Your task to perform on an android device: Go to CNN.com Image 0: 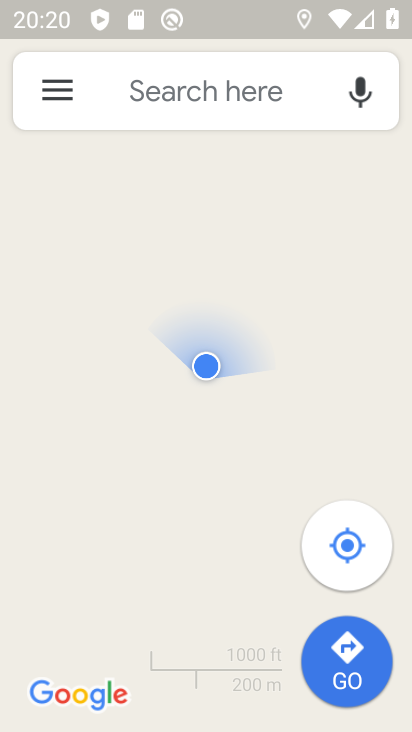
Step 0: press home button
Your task to perform on an android device: Go to CNN.com Image 1: 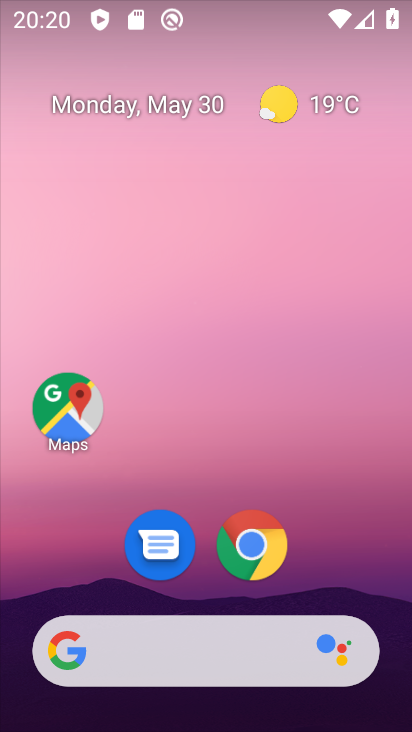
Step 1: drag from (344, 566) to (304, 298)
Your task to perform on an android device: Go to CNN.com Image 2: 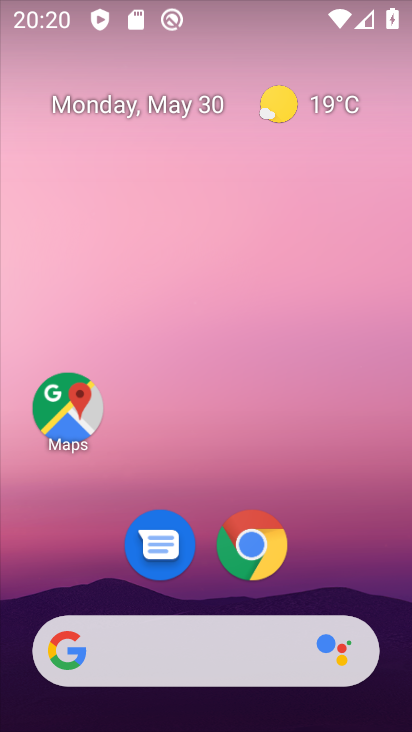
Step 2: click (252, 555)
Your task to perform on an android device: Go to CNN.com Image 3: 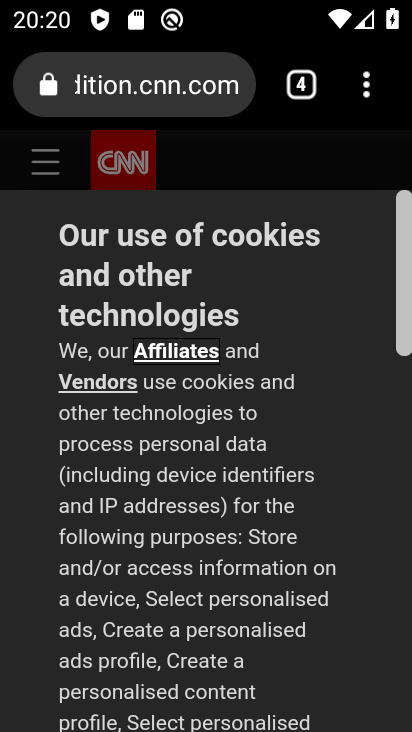
Step 3: task complete